Your task to perform on an android device: What's on my calendar today? Image 0: 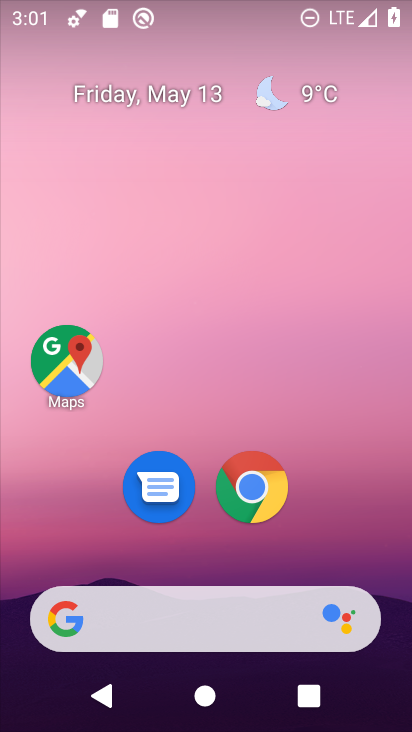
Step 0: drag from (187, 588) to (160, 11)
Your task to perform on an android device: What's on my calendar today? Image 1: 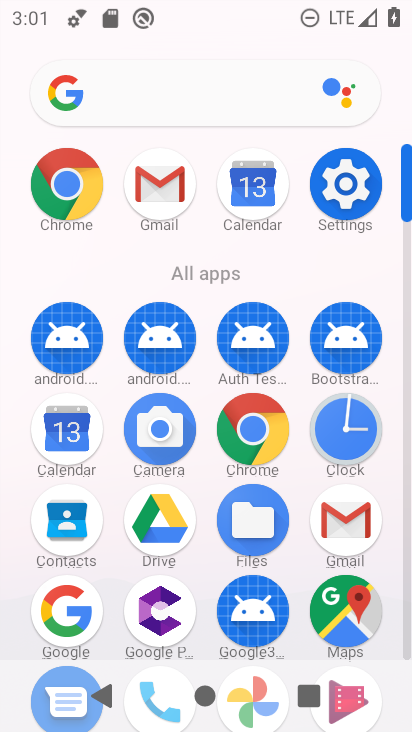
Step 1: click (78, 430)
Your task to perform on an android device: What's on my calendar today? Image 2: 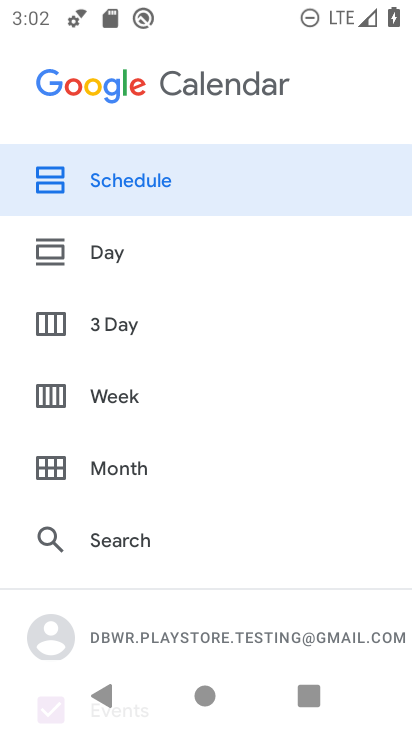
Step 2: click (111, 201)
Your task to perform on an android device: What's on my calendar today? Image 3: 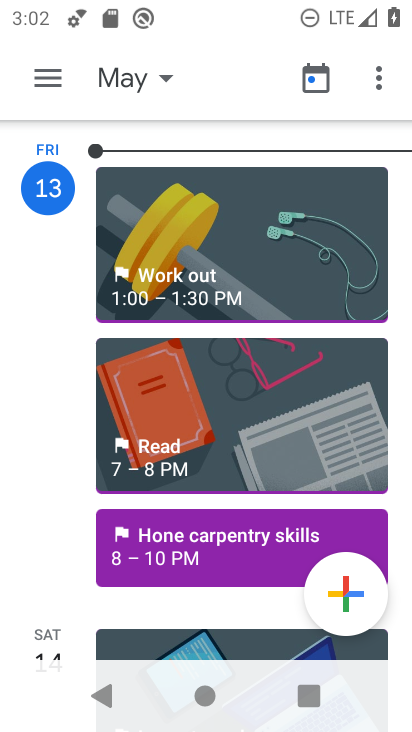
Step 3: task complete